Your task to perform on an android device: Do I have any events today? Image 0: 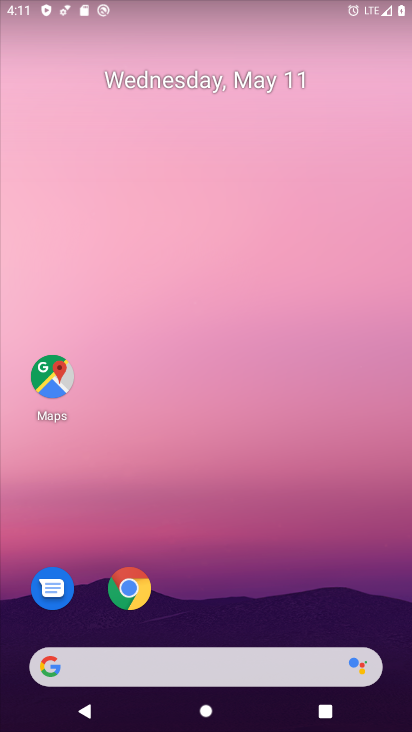
Step 0: drag from (223, 529) to (227, 162)
Your task to perform on an android device: Do I have any events today? Image 1: 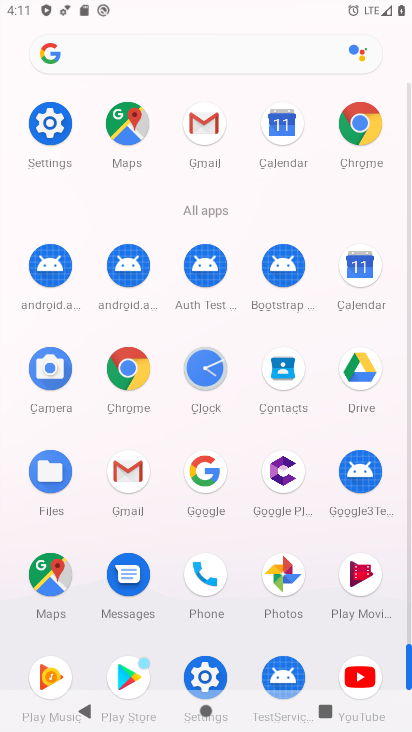
Step 1: click (372, 267)
Your task to perform on an android device: Do I have any events today? Image 2: 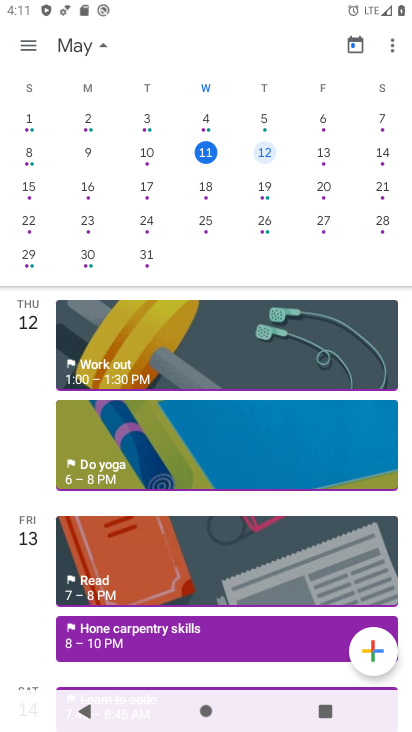
Step 2: task complete